Your task to perform on an android device: turn off notifications settings in the gmail app Image 0: 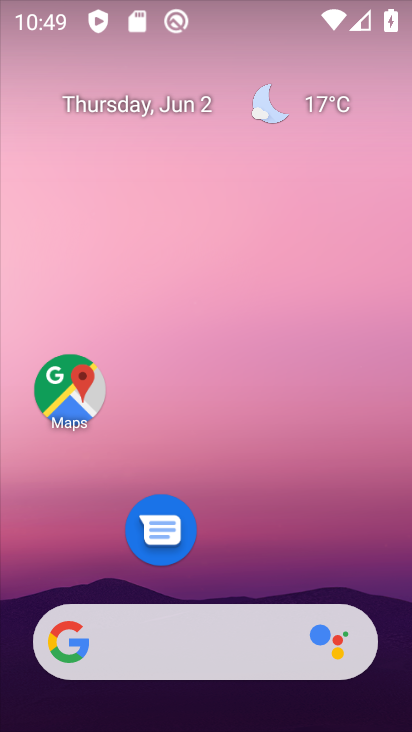
Step 0: drag from (262, 681) to (203, 150)
Your task to perform on an android device: turn off notifications settings in the gmail app Image 1: 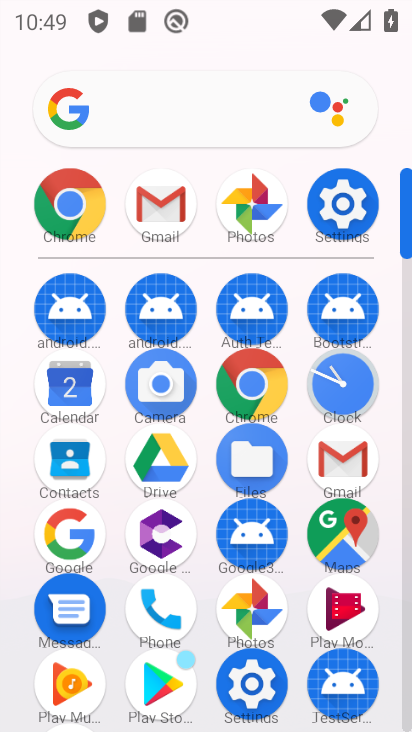
Step 1: click (346, 456)
Your task to perform on an android device: turn off notifications settings in the gmail app Image 2: 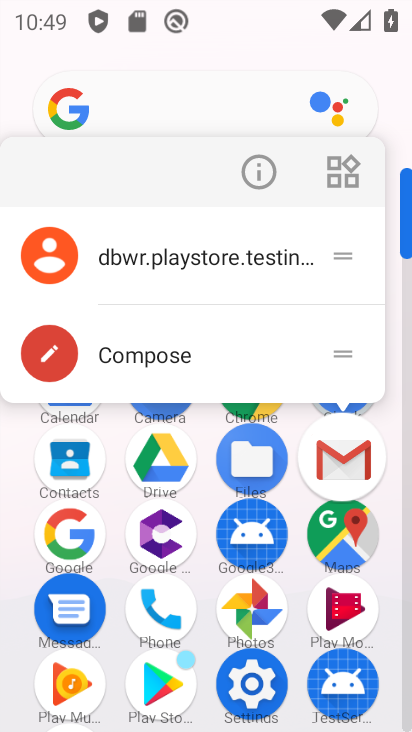
Step 2: click (346, 453)
Your task to perform on an android device: turn off notifications settings in the gmail app Image 3: 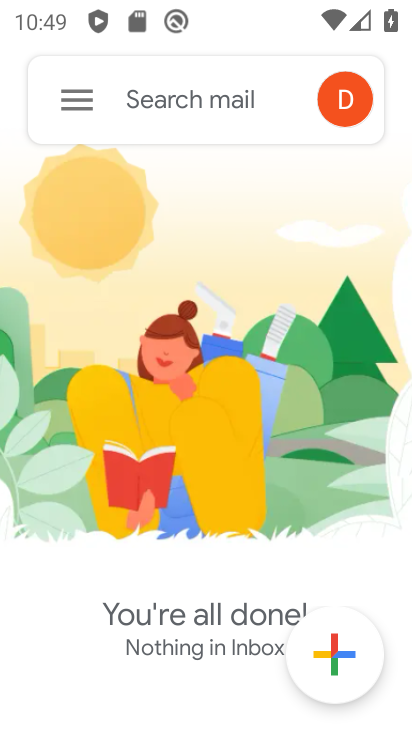
Step 3: click (100, 100)
Your task to perform on an android device: turn off notifications settings in the gmail app Image 4: 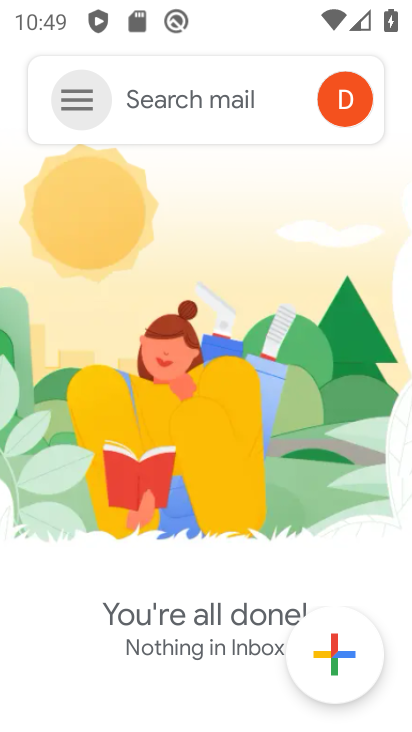
Step 4: click (93, 98)
Your task to perform on an android device: turn off notifications settings in the gmail app Image 5: 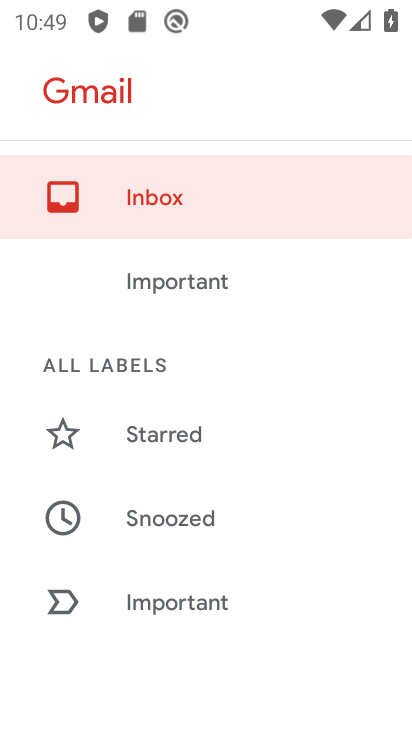
Step 5: drag from (198, 533) to (159, 248)
Your task to perform on an android device: turn off notifications settings in the gmail app Image 6: 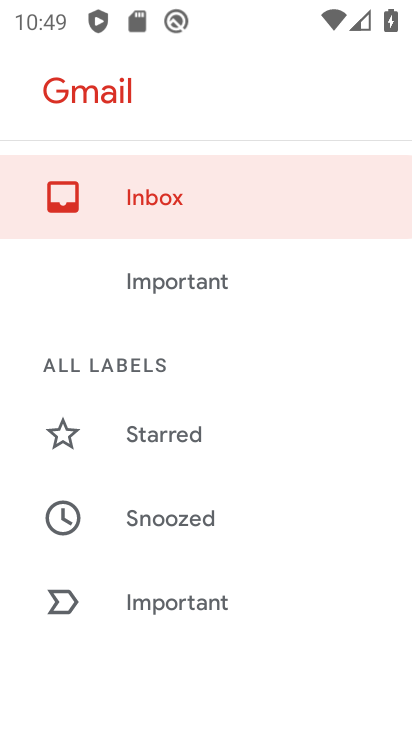
Step 6: drag from (177, 403) to (138, 130)
Your task to perform on an android device: turn off notifications settings in the gmail app Image 7: 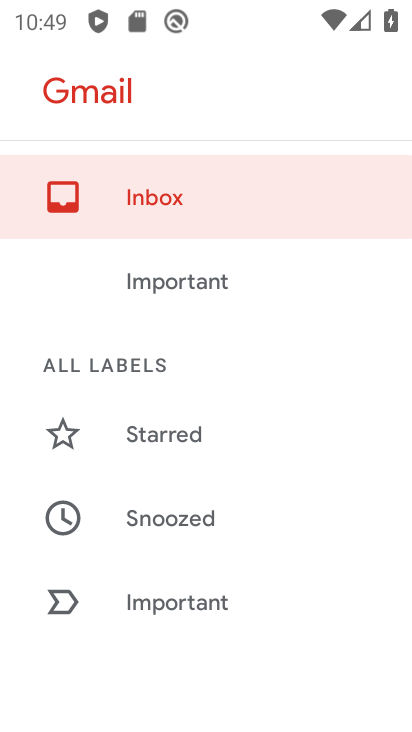
Step 7: click (182, 158)
Your task to perform on an android device: turn off notifications settings in the gmail app Image 8: 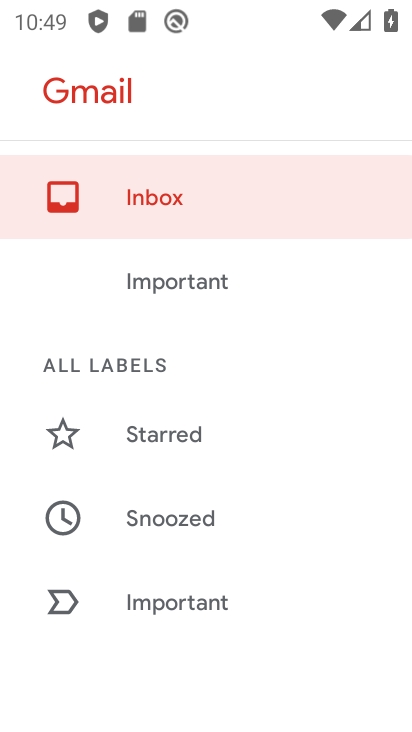
Step 8: drag from (221, 471) to (211, 160)
Your task to perform on an android device: turn off notifications settings in the gmail app Image 9: 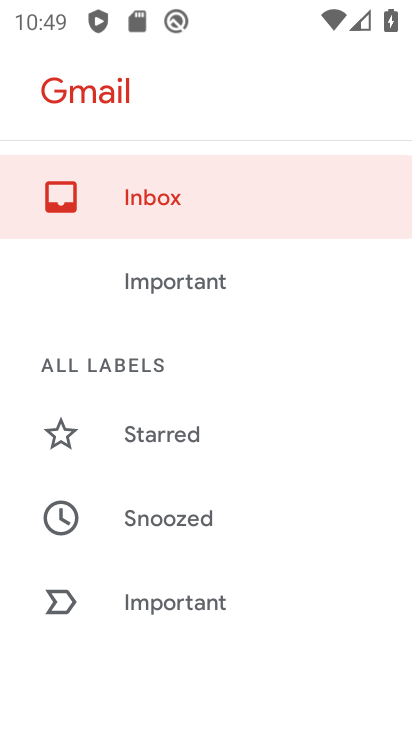
Step 9: drag from (205, 373) to (179, 161)
Your task to perform on an android device: turn off notifications settings in the gmail app Image 10: 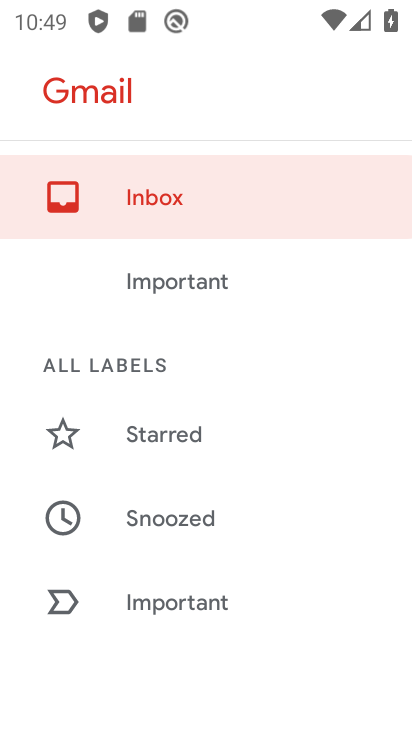
Step 10: drag from (229, 387) to (217, 196)
Your task to perform on an android device: turn off notifications settings in the gmail app Image 11: 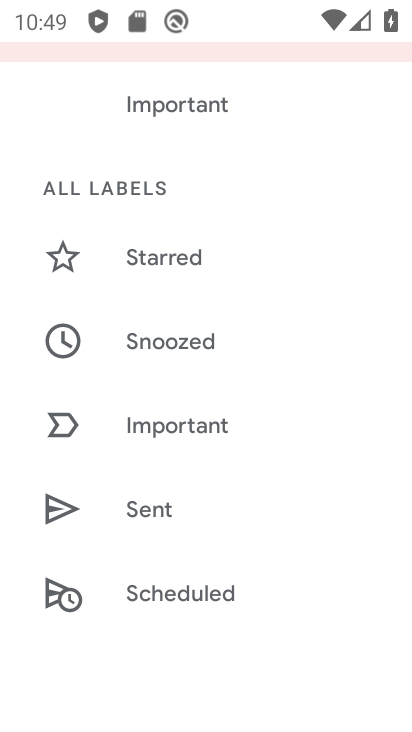
Step 11: drag from (165, 490) to (165, 220)
Your task to perform on an android device: turn off notifications settings in the gmail app Image 12: 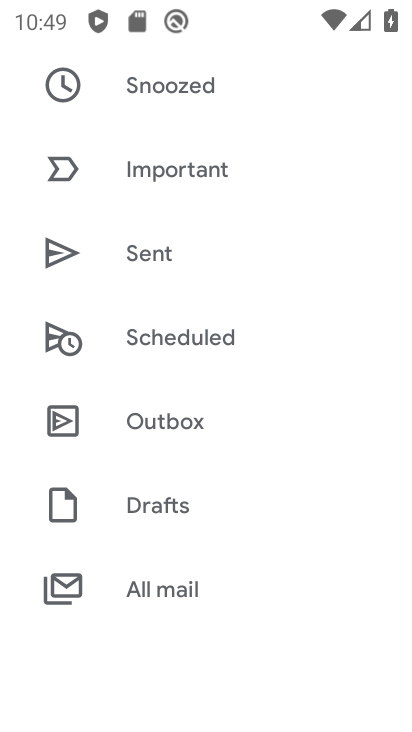
Step 12: drag from (171, 525) to (171, 289)
Your task to perform on an android device: turn off notifications settings in the gmail app Image 13: 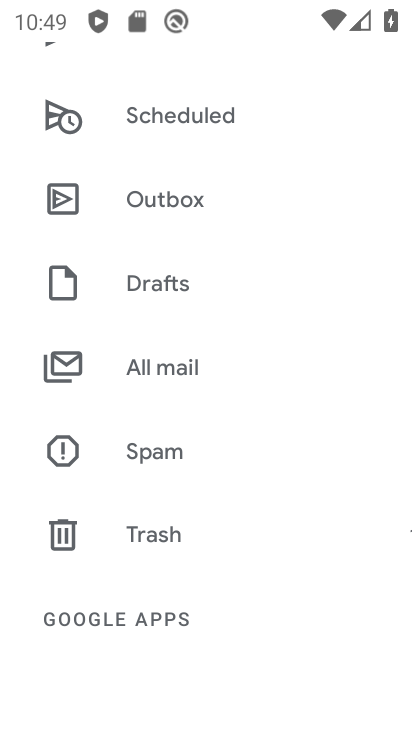
Step 13: drag from (215, 339) to (210, 175)
Your task to perform on an android device: turn off notifications settings in the gmail app Image 14: 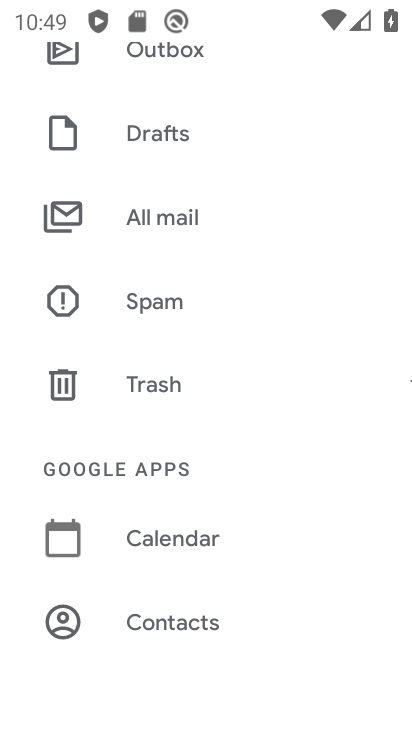
Step 14: drag from (242, 437) to (197, 143)
Your task to perform on an android device: turn off notifications settings in the gmail app Image 15: 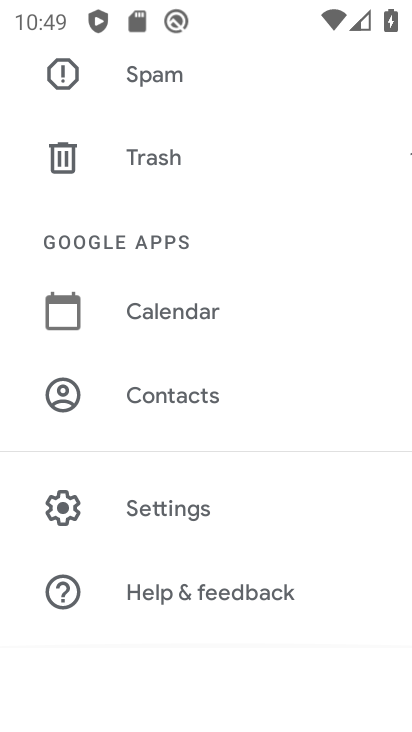
Step 15: drag from (212, 379) to (192, 247)
Your task to perform on an android device: turn off notifications settings in the gmail app Image 16: 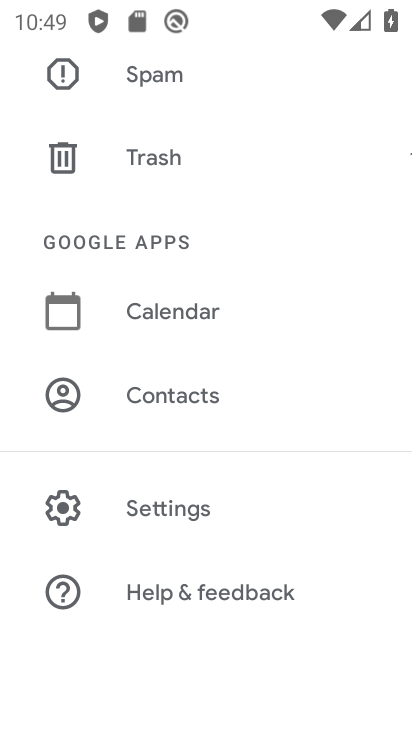
Step 16: click (179, 513)
Your task to perform on an android device: turn off notifications settings in the gmail app Image 17: 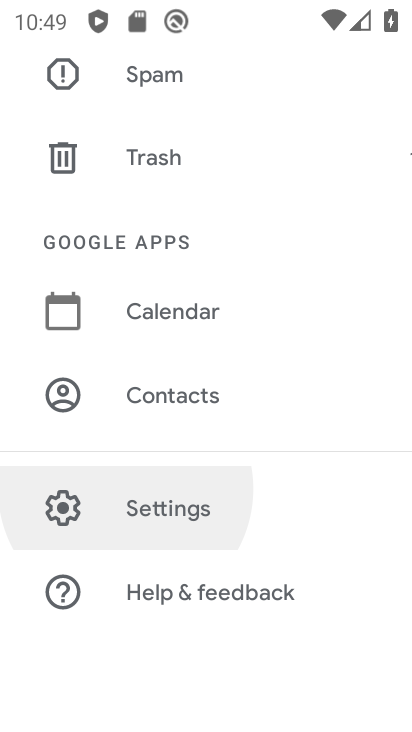
Step 17: click (178, 512)
Your task to perform on an android device: turn off notifications settings in the gmail app Image 18: 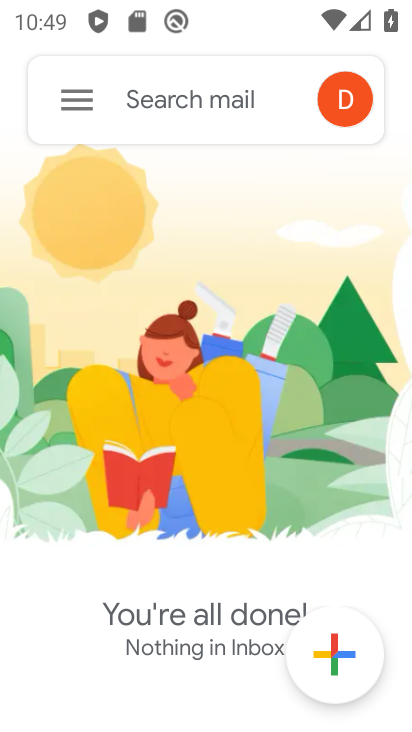
Step 18: click (175, 512)
Your task to perform on an android device: turn off notifications settings in the gmail app Image 19: 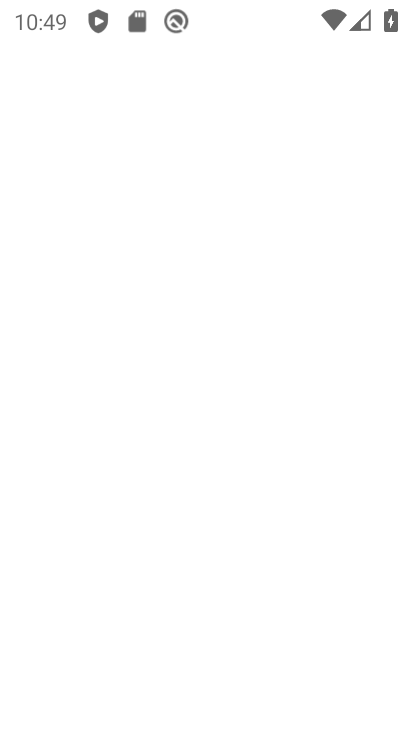
Step 19: click (175, 512)
Your task to perform on an android device: turn off notifications settings in the gmail app Image 20: 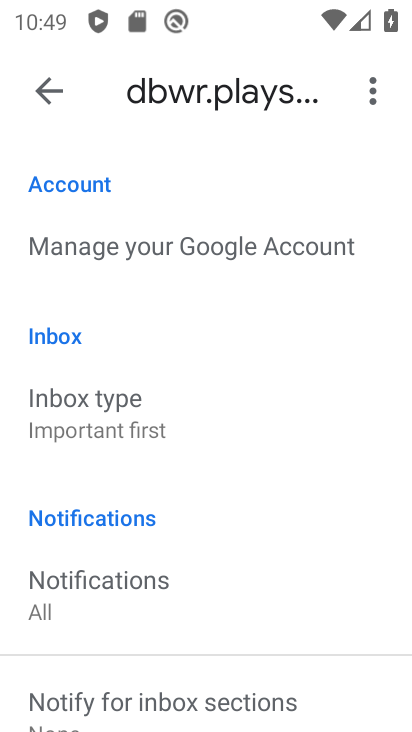
Step 20: click (86, 578)
Your task to perform on an android device: turn off notifications settings in the gmail app Image 21: 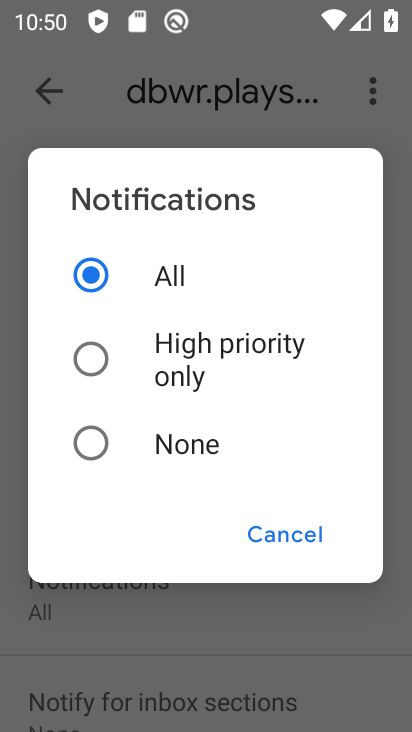
Step 21: click (100, 436)
Your task to perform on an android device: turn off notifications settings in the gmail app Image 22: 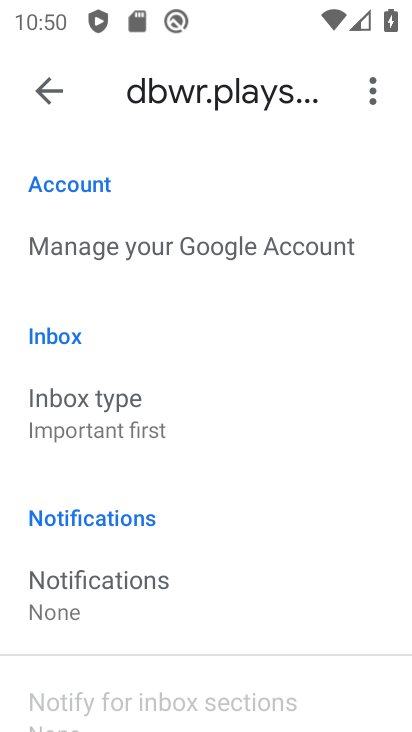
Step 22: task complete